Your task to perform on an android device: set default search engine in the chrome app Image 0: 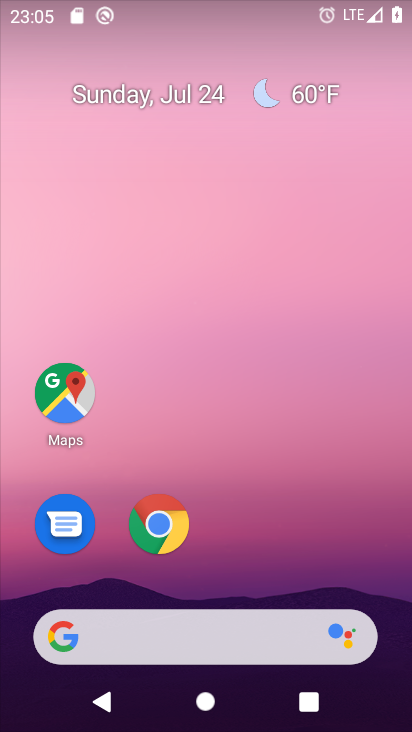
Step 0: click (175, 521)
Your task to perform on an android device: set default search engine in the chrome app Image 1: 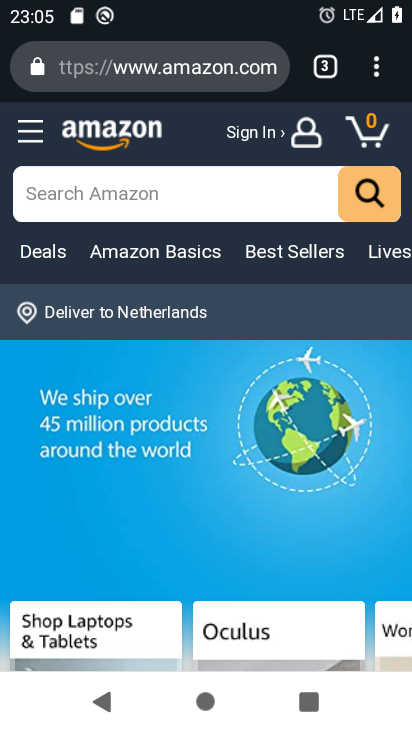
Step 1: click (378, 77)
Your task to perform on an android device: set default search engine in the chrome app Image 2: 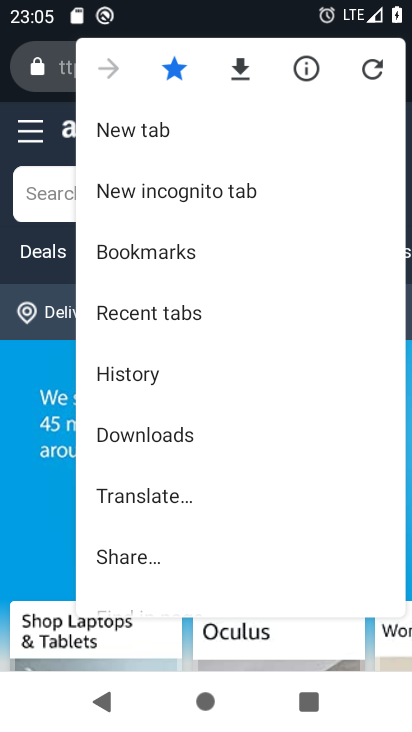
Step 2: drag from (231, 489) to (277, 0)
Your task to perform on an android device: set default search engine in the chrome app Image 3: 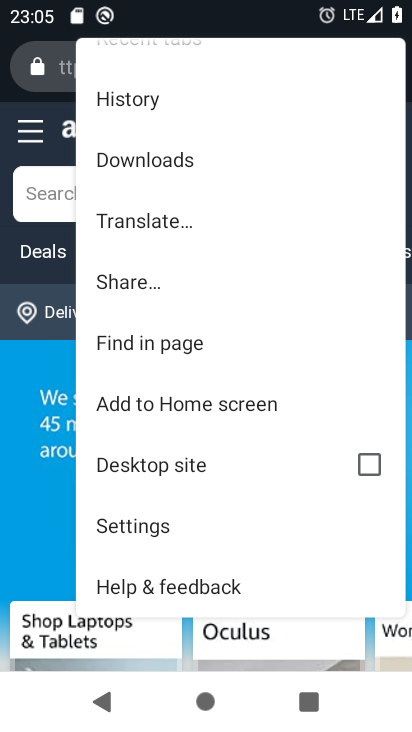
Step 3: click (154, 528)
Your task to perform on an android device: set default search engine in the chrome app Image 4: 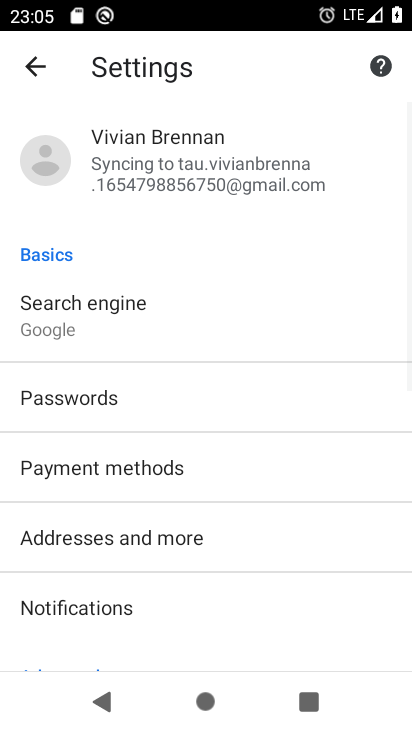
Step 4: click (128, 316)
Your task to perform on an android device: set default search engine in the chrome app Image 5: 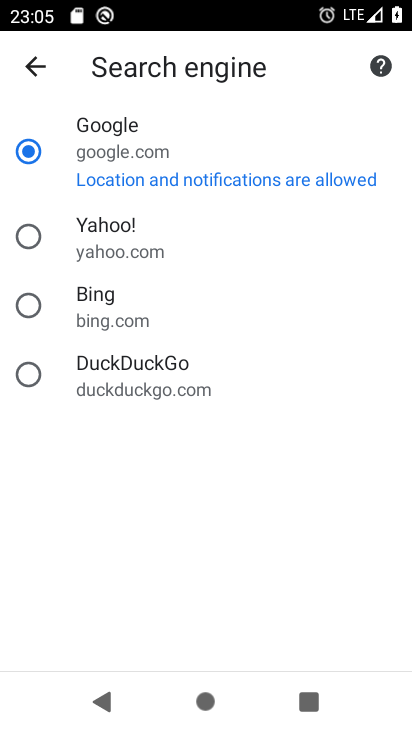
Step 5: task complete